Your task to perform on an android device: Open Youtube and go to "Your channel" Image 0: 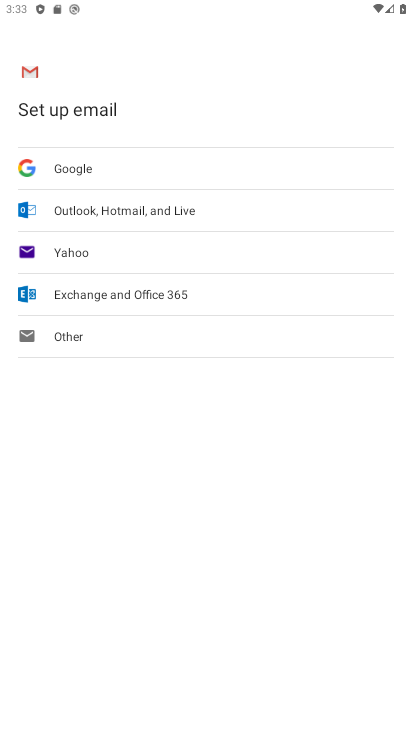
Step 0: press back button
Your task to perform on an android device: Open Youtube and go to "Your channel" Image 1: 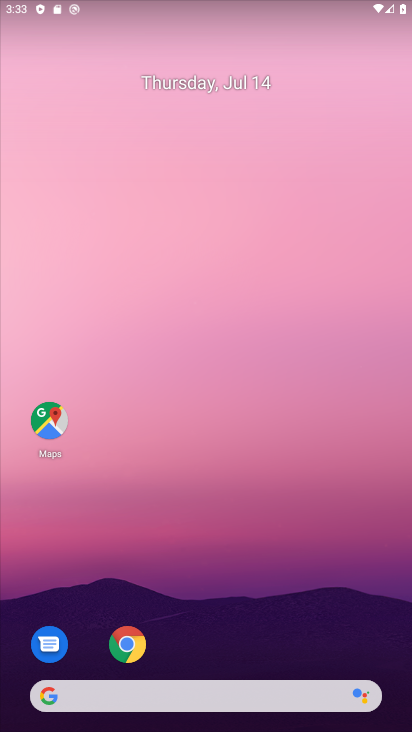
Step 1: drag from (226, 633) to (263, 12)
Your task to perform on an android device: Open Youtube and go to "Your channel" Image 2: 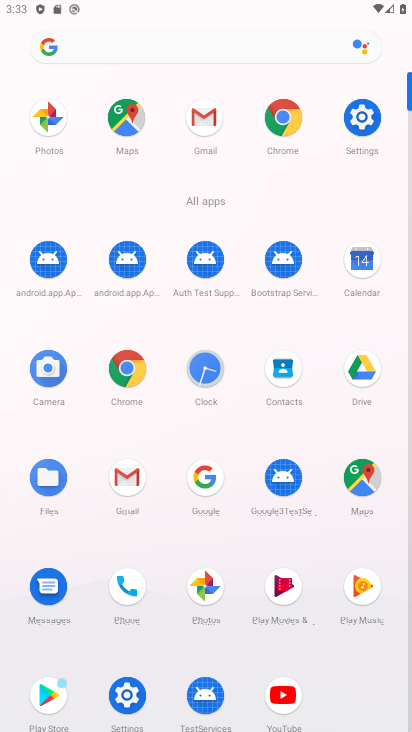
Step 2: click (279, 691)
Your task to perform on an android device: Open Youtube and go to "Your channel" Image 3: 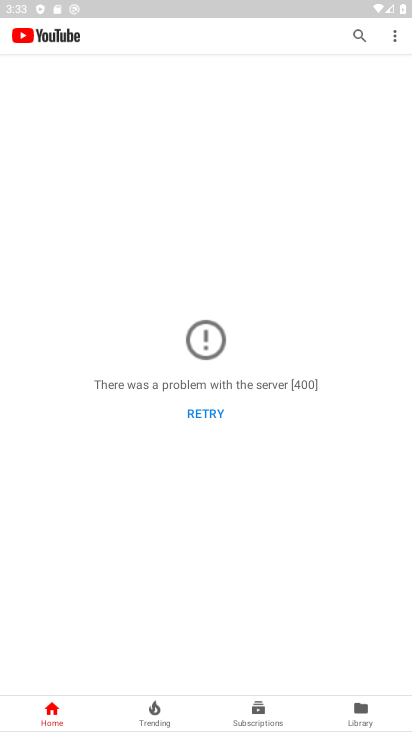
Step 3: task complete